Your task to perform on an android device: allow cookies in the chrome app Image 0: 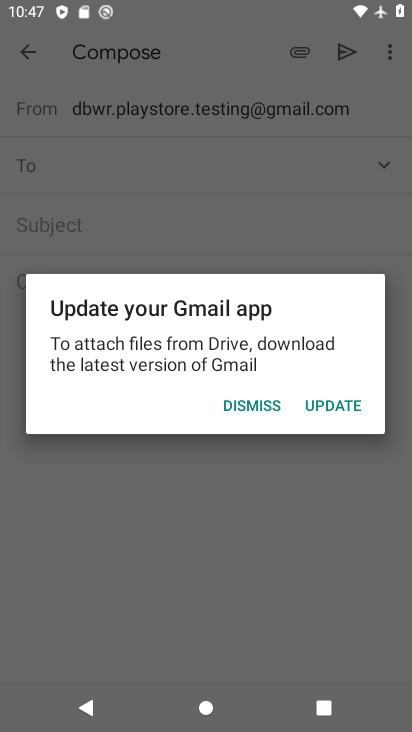
Step 0: press home button
Your task to perform on an android device: allow cookies in the chrome app Image 1: 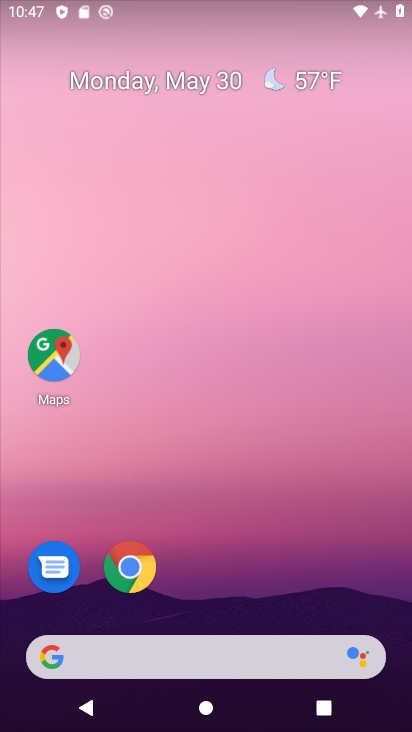
Step 1: click (137, 557)
Your task to perform on an android device: allow cookies in the chrome app Image 2: 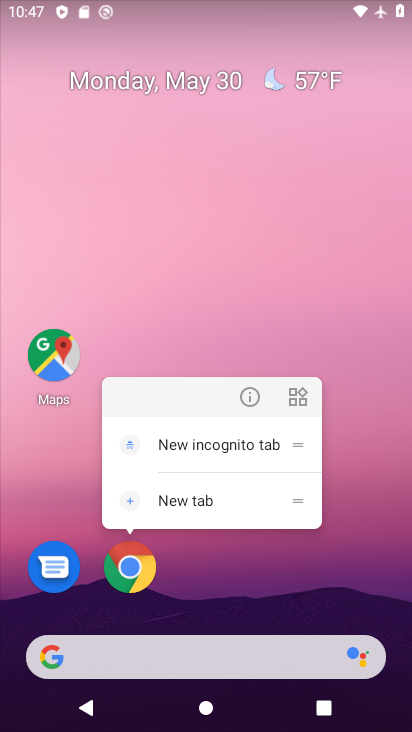
Step 2: click (143, 555)
Your task to perform on an android device: allow cookies in the chrome app Image 3: 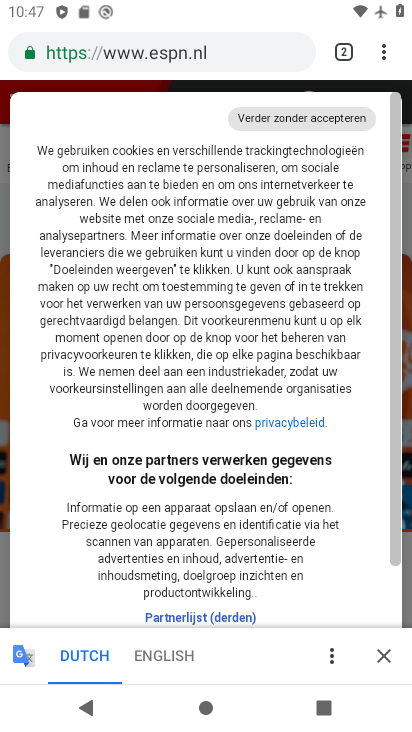
Step 3: click (382, 53)
Your task to perform on an android device: allow cookies in the chrome app Image 4: 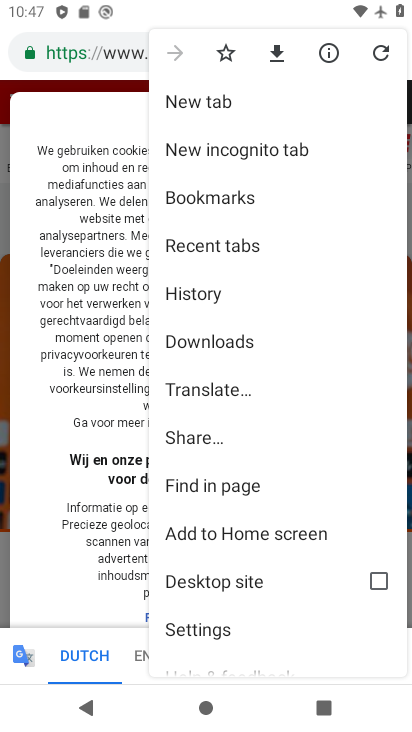
Step 4: click (184, 640)
Your task to perform on an android device: allow cookies in the chrome app Image 5: 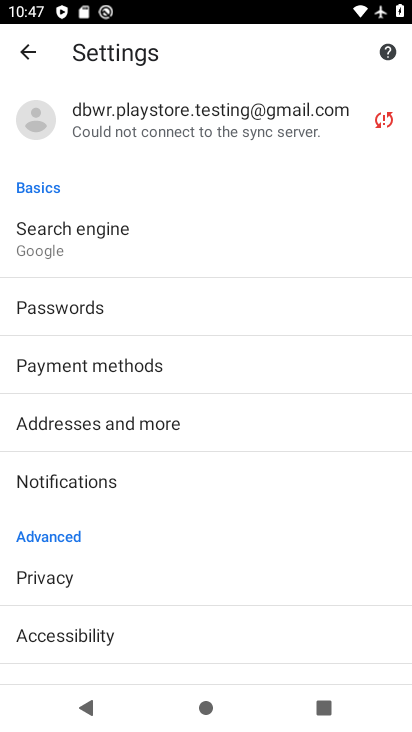
Step 5: drag from (151, 563) to (152, 308)
Your task to perform on an android device: allow cookies in the chrome app Image 6: 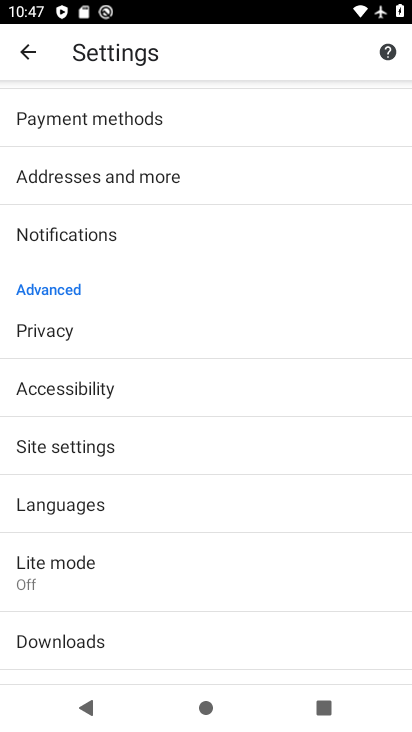
Step 6: click (88, 453)
Your task to perform on an android device: allow cookies in the chrome app Image 7: 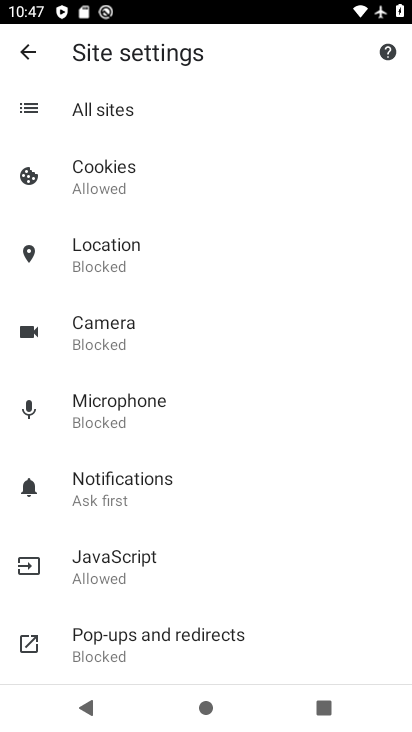
Step 7: click (97, 200)
Your task to perform on an android device: allow cookies in the chrome app Image 8: 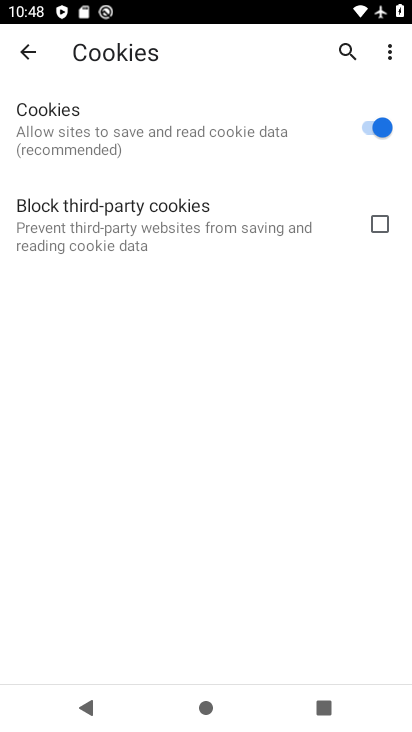
Step 8: task complete